Your task to perform on an android device: all mails in gmail Image 0: 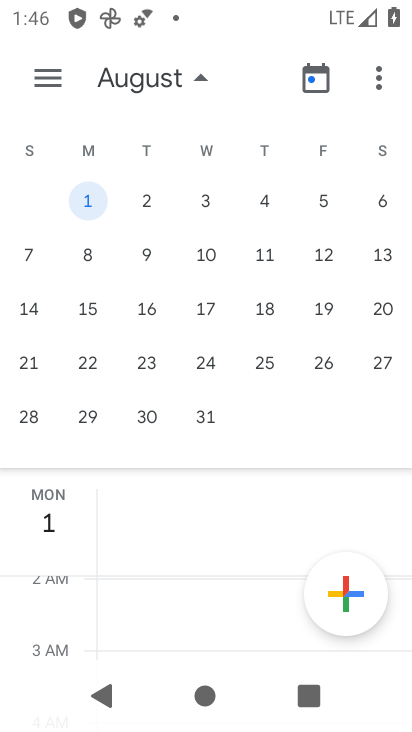
Step 0: press home button
Your task to perform on an android device: all mails in gmail Image 1: 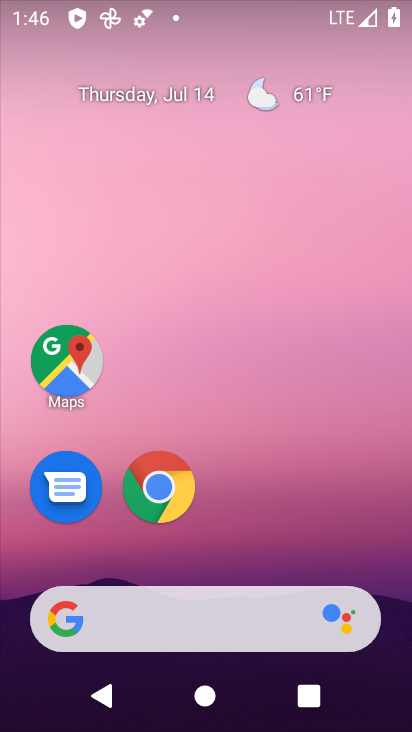
Step 1: drag from (352, 531) to (362, 112)
Your task to perform on an android device: all mails in gmail Image 2: 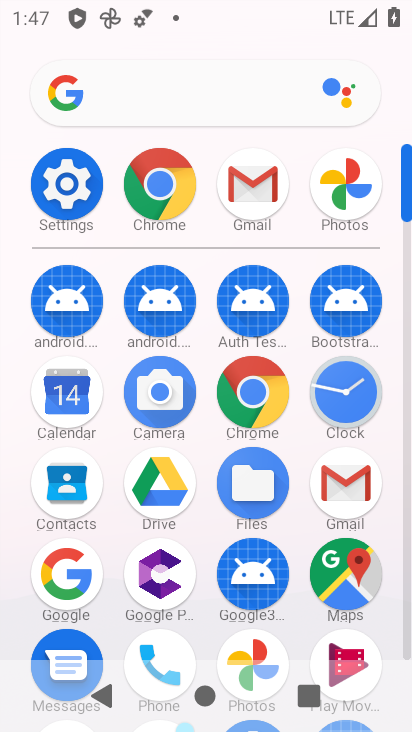
Step 2: click (358, 489)
Your task to perform on an android device: all mails in gmail Image 3: 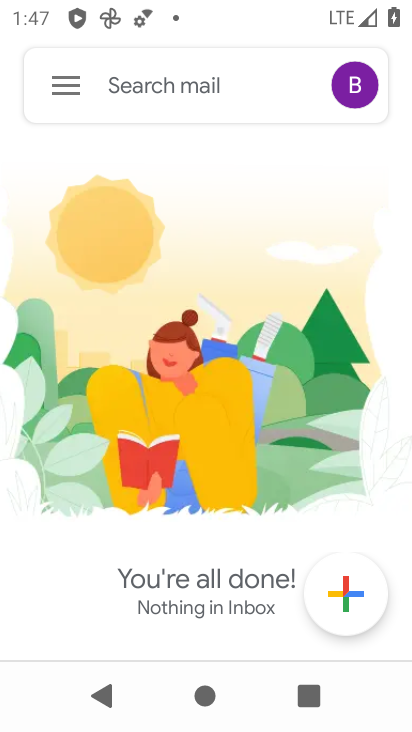
Step 3: click (70, 88)
Your task to perform on an android device: all mails in gmail Image 4: 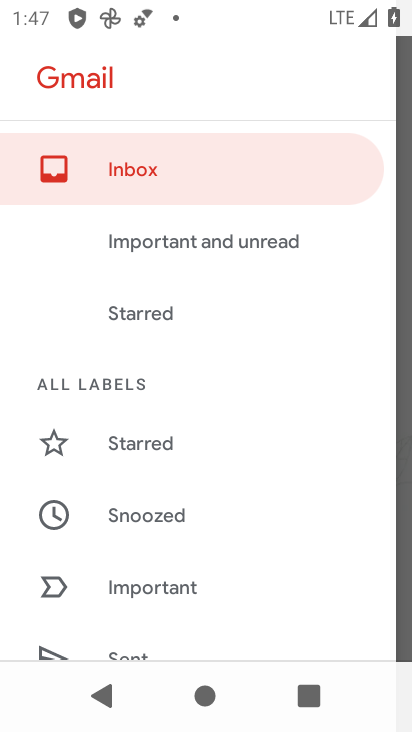
Step 4: drag from (307, 414) to (312, 340)
Your task to perform on an android device: all mails in gmail Image 5: 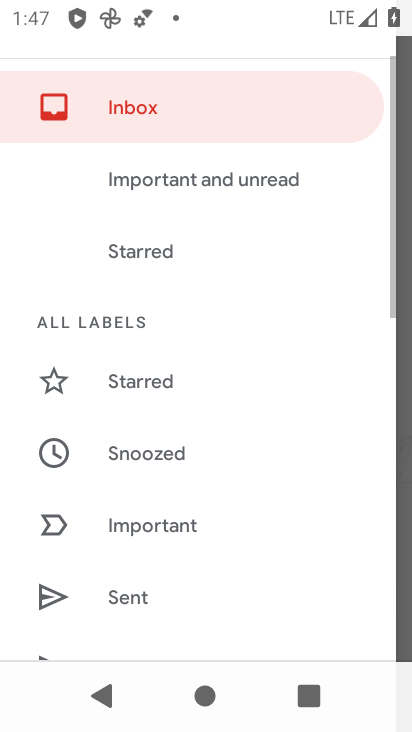
Step 5: drag from (324, 431) to (324, 378)
Your task to perform on an android device: all mails in gmail Image 6: 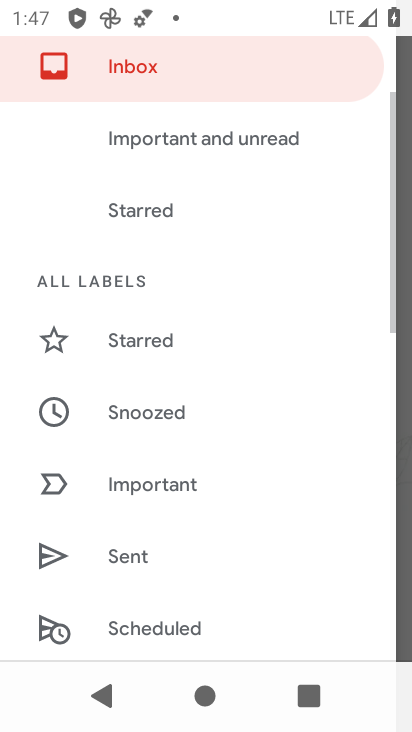
Step 6: drag from (325, 447) to (328, 341)
Your task to perform on an android device: all mails in gmail Image 7: 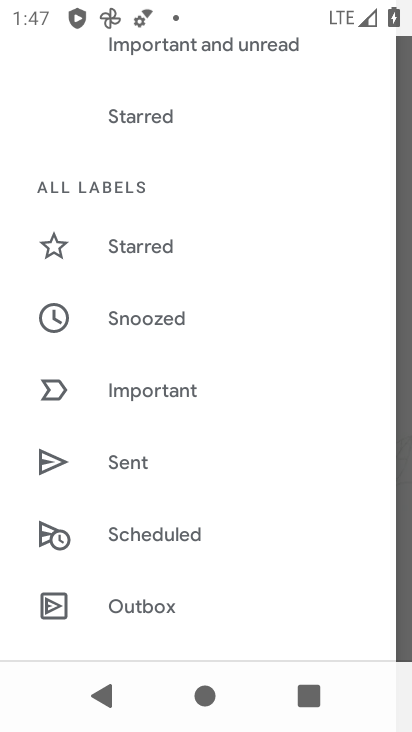
Step 7: drag from (321, 433) to (323, 350)
Your task to perform on an android device: all mails in gmail Image 8: 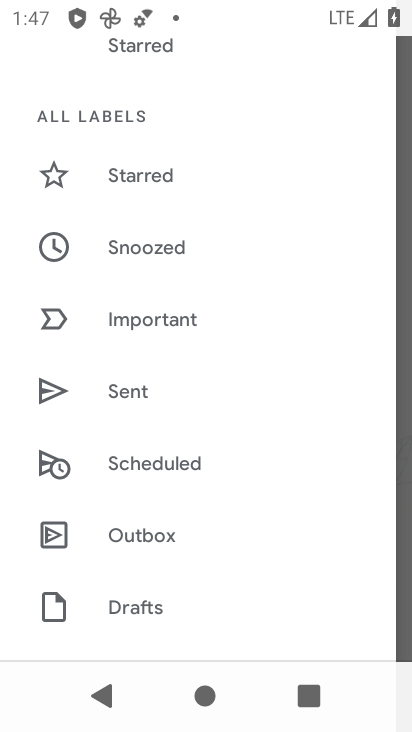
Step 8: drag from (325, 455) to (326, 362)
Your task to perform on an android device: all mails in gmail Image 9: 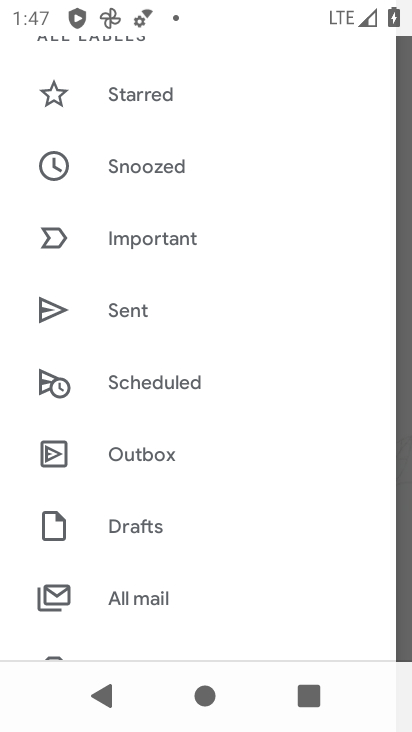
Step 9: drag from (326, 449) to (316, 328)
Your task to perform on an android device: all mails in gmail Image 10: 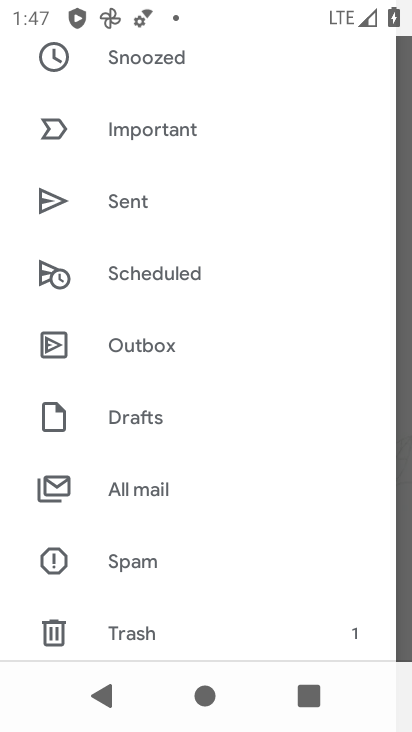
Step 10: drag from (292, 464) to (282, 325)
Your task to perform on an android device: all mails in gmail Image 11: 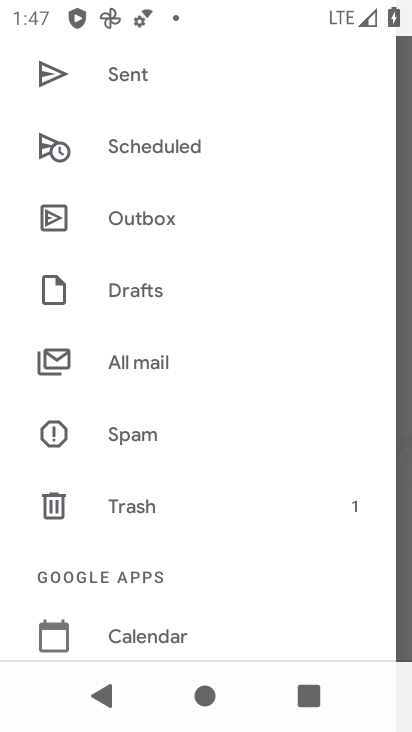
Step 11: drag from (277, 466) to (273, 277)
Your task to perform on an android device: all mails in gmail Image 12: 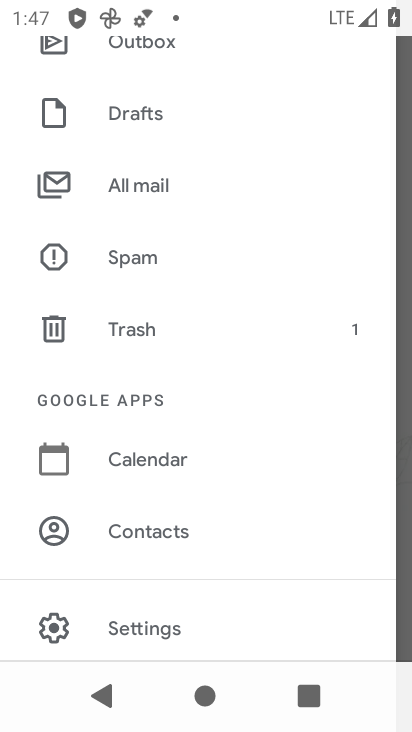
Step 12: drag from (270, 473) to (264, 342)
Your task to perform on an android device: all mails in gmail Image 13: 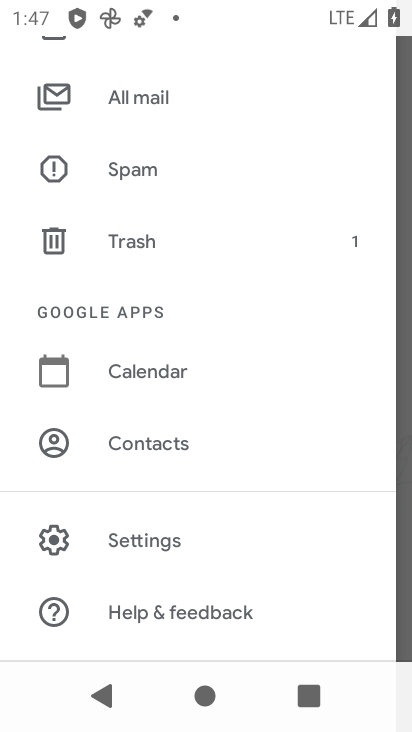
Step 13: drag from (248, 197) to (260, 383)
Your task to perform on an android device: all mails in gmail Image 14: 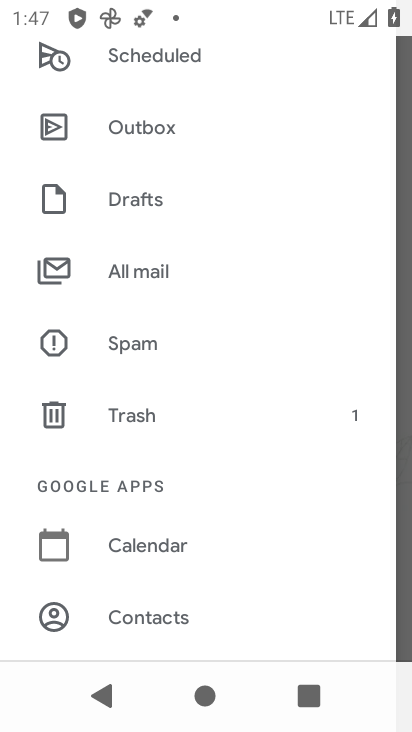
Step 14: click (182, 276)
Your task to perform on an android device: all mails in gmail Image 15: 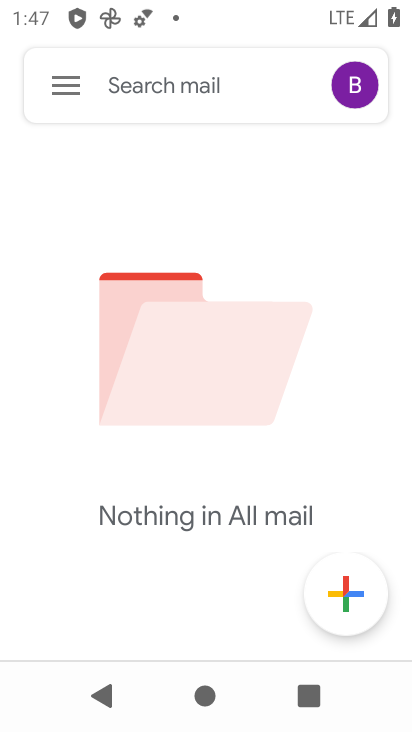
Step 15: task complete